Your task to perform on an android device: Check the settings for the Amazon Alexa app Image 0: 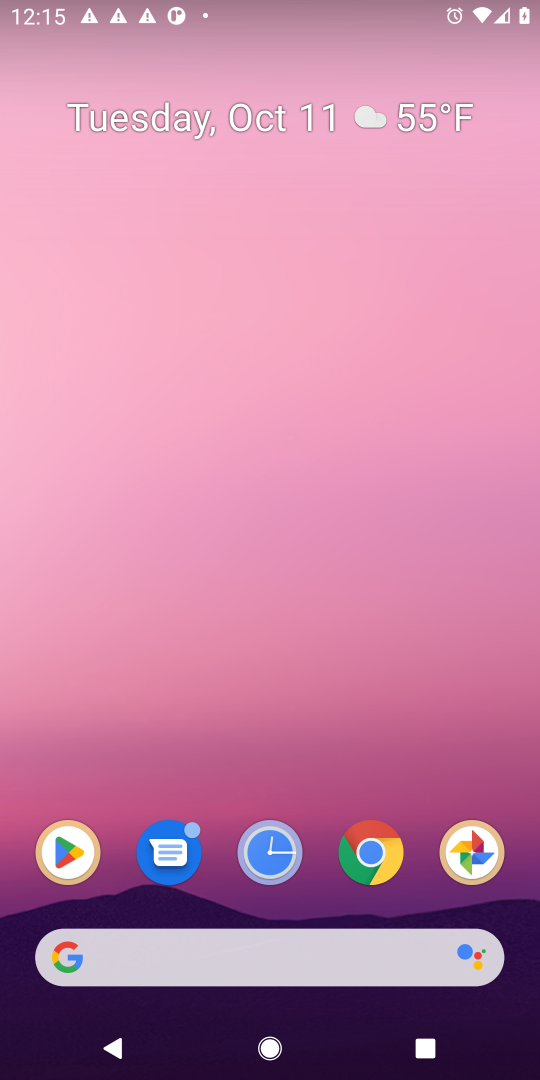
Step 0: click (74, 848)
Your task to perform on an android device: Check the settings for the Amazon Alexa app Image 1: 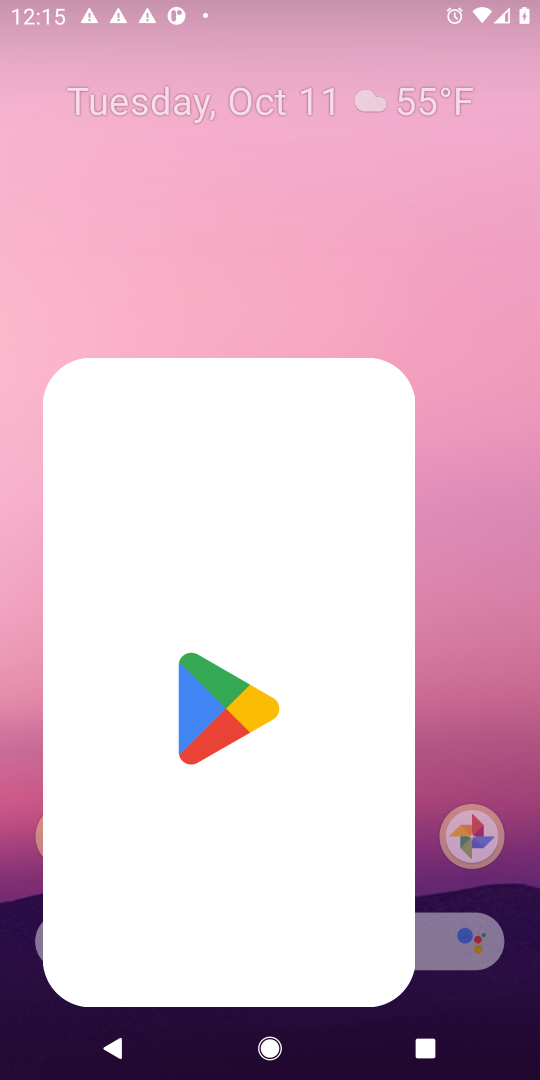
Step 1: click (74, 848)
Your task to perform on an android device: Check the settings for the Amazon Alexa app Image 2: 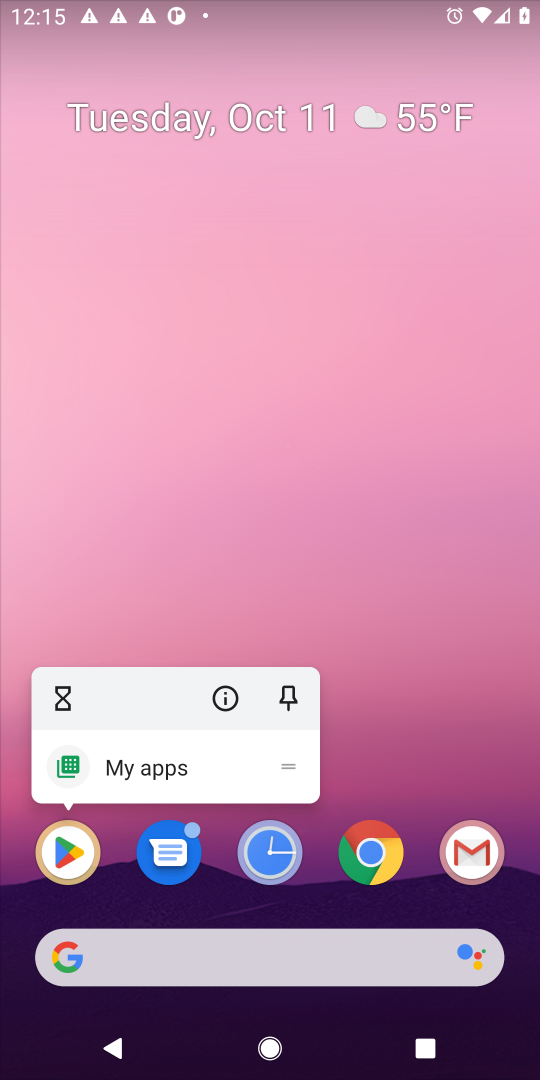
Step 2: click (74, 848)
Your task to perform on an android device: Check the settings for the Amazon Alexa app Image 3: 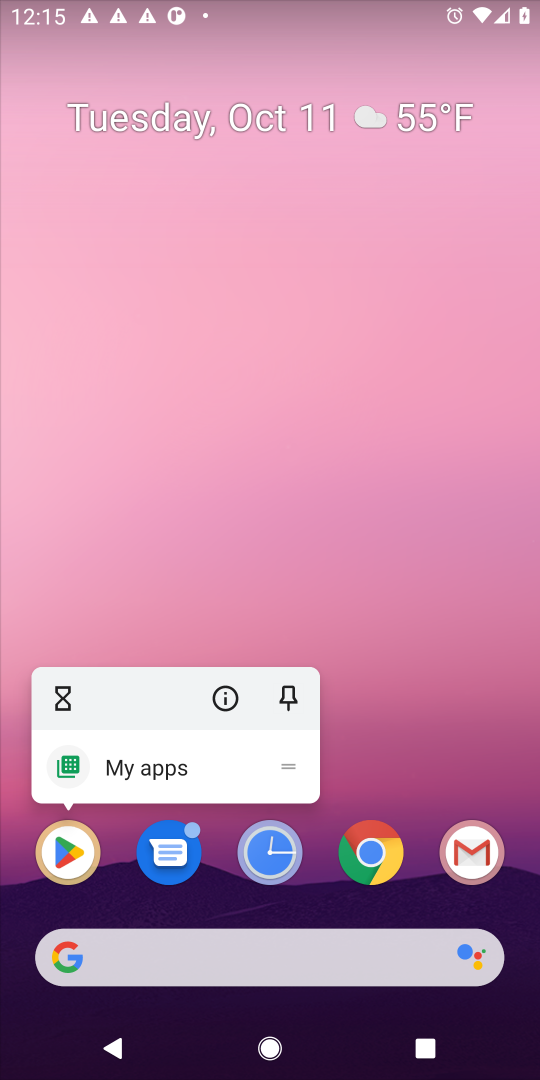
Step 3: click (74, 848)
Your task to perform on an android device: Check the settings for the Amazon Alexa app Image 4: 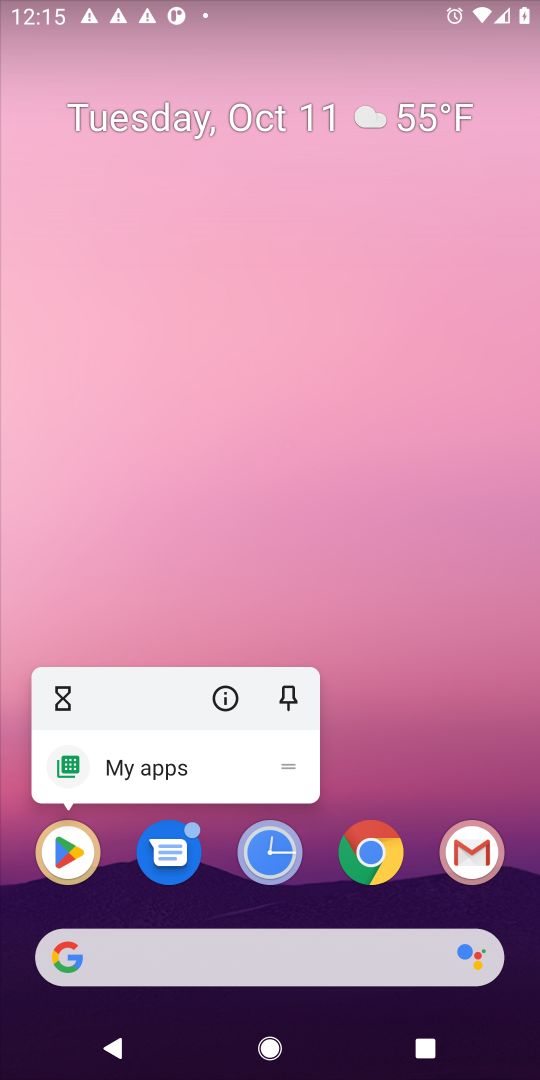
Step 4: click (63, 858)
Your task to perform on an android device: Check the settings for the Amazon Alexa app Image 5: 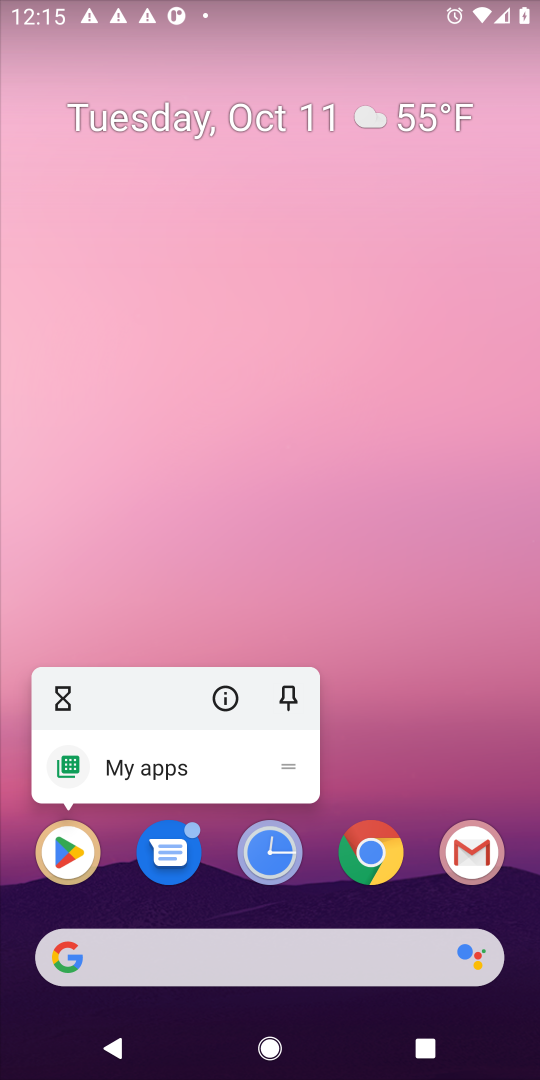
Step 5: click (63, 858)
Your task to perform on an android device: Check the settings for the Amazon Alexa app Image 6: 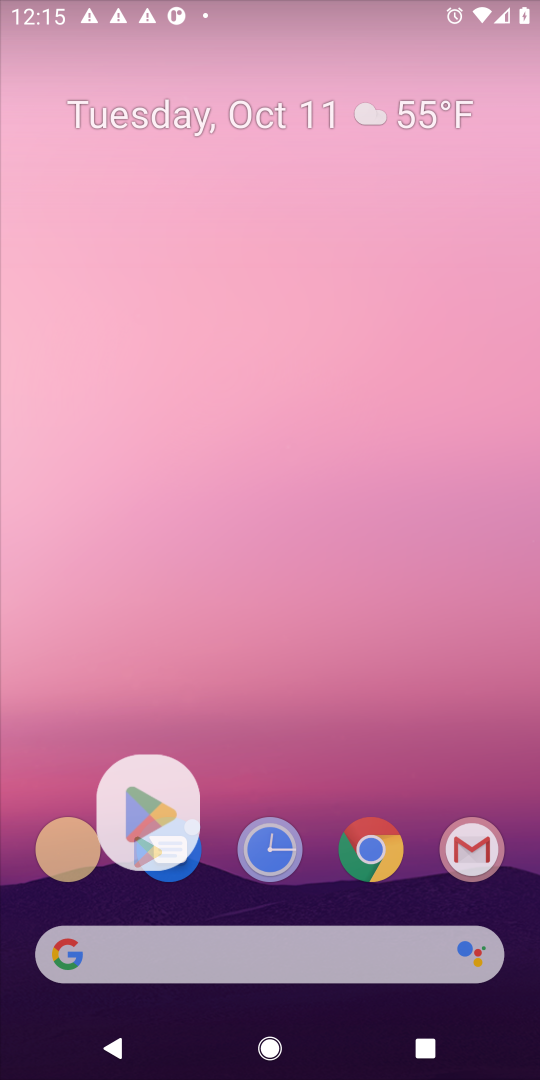
Step 6: click (63, 858)
Your task to perform on an android device: Check the settings for the Amazon Alexa app Image 7: 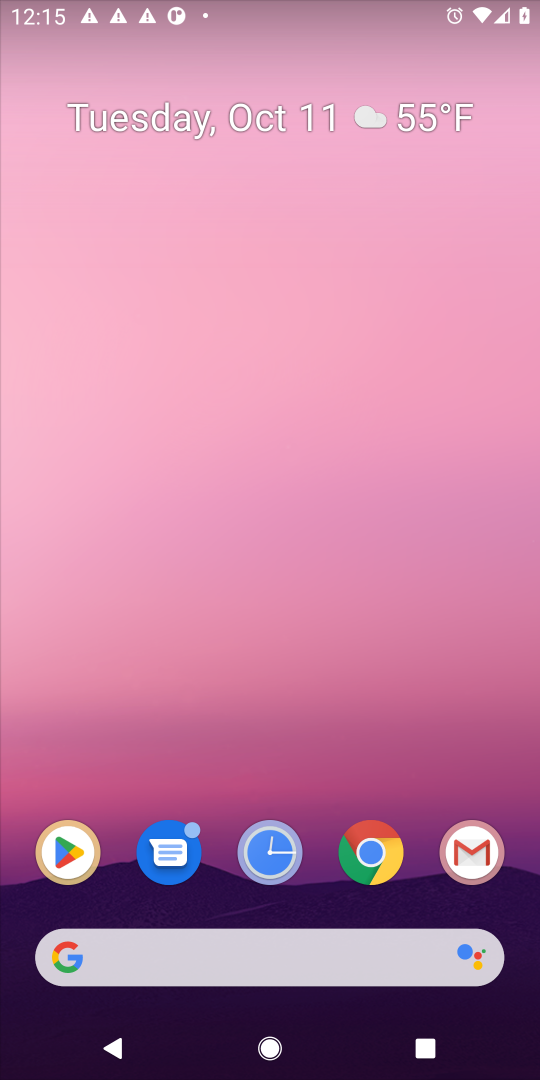
Step 7: click (63, 858)
Your task to perform on an android device: Check the settings for the Amazon Alexa app Image 8: 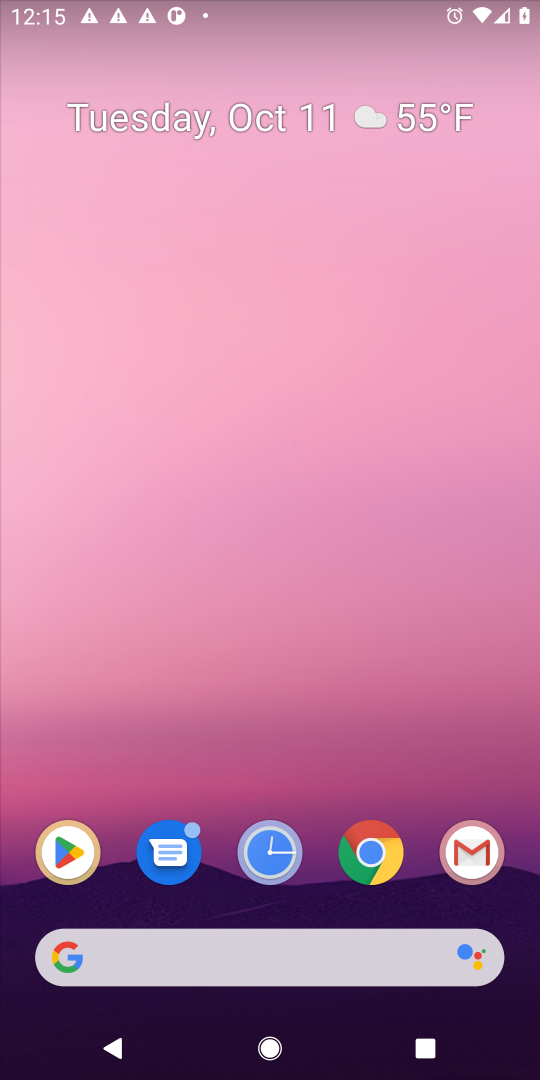
Step 8: click (63, 858)
Your task to perform on an android device: Check the settings for the Amazon Alexa app Image 9: 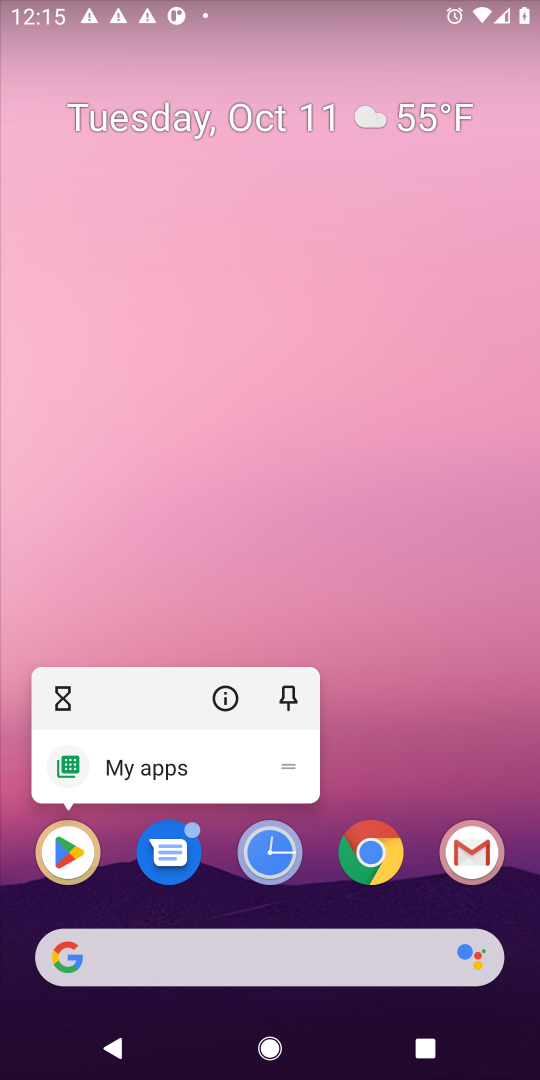
Step 9: click (63, 858)
Your task to perform on an android device: Check the settings for the Amazon Alexa app Image 10: 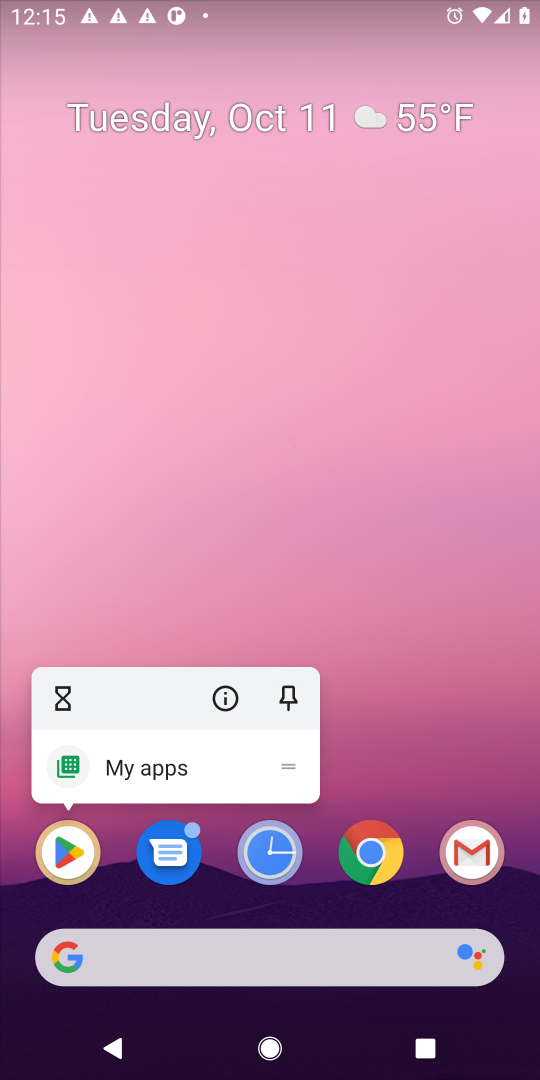
Step 10: click (71, 871)
Your task to perform on an android device: Check the settings for the Amazon Alexa app Image 11: 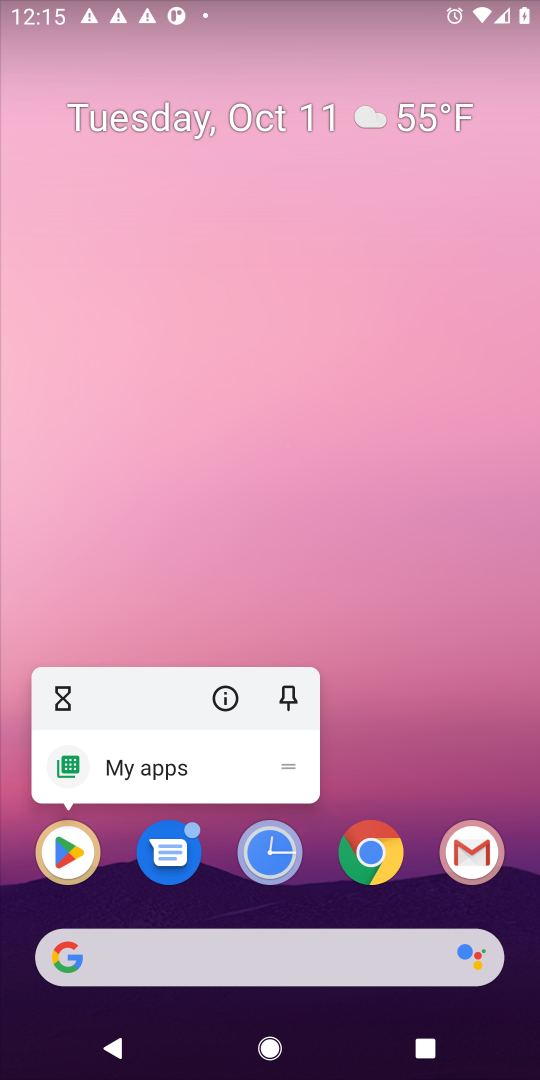
Step 11: click (73, 847)
Your task to perform on an android device: Check the settings for the Amazon Alexa app Image 12: 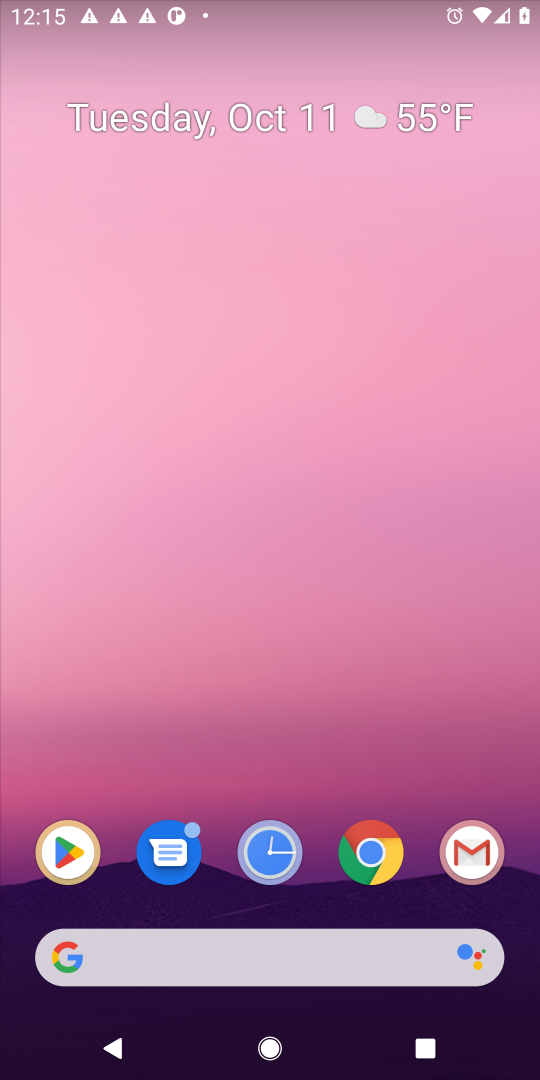
Step 12: click (73, 847)
Your task to perform on an android device: Check the settings for the Amazon Alexa app Image 13: 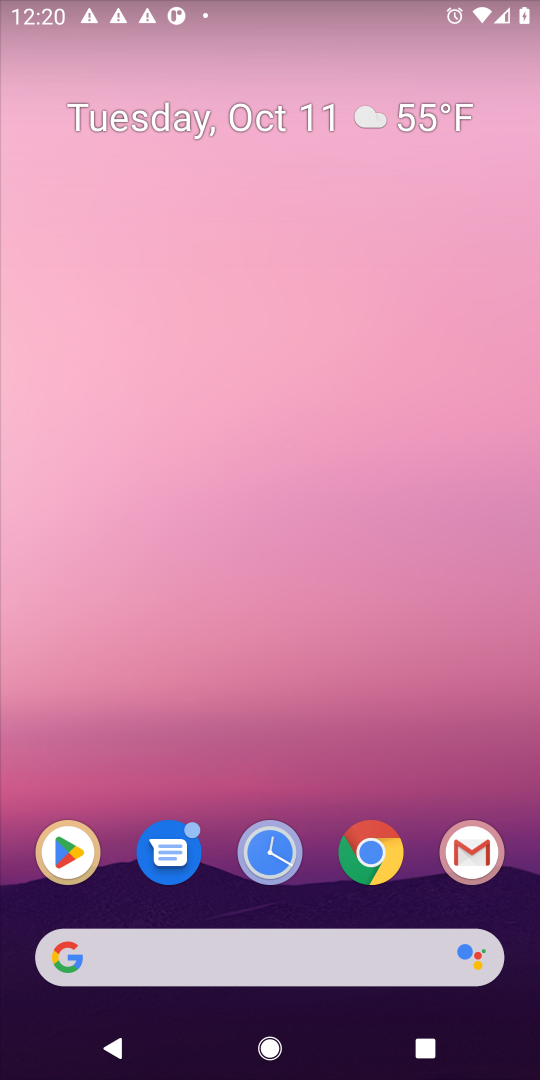
Step 13: task complete